Your task to perform on an android device: Open the calendar app, open the side menu, and click the "Day" option Image 0: 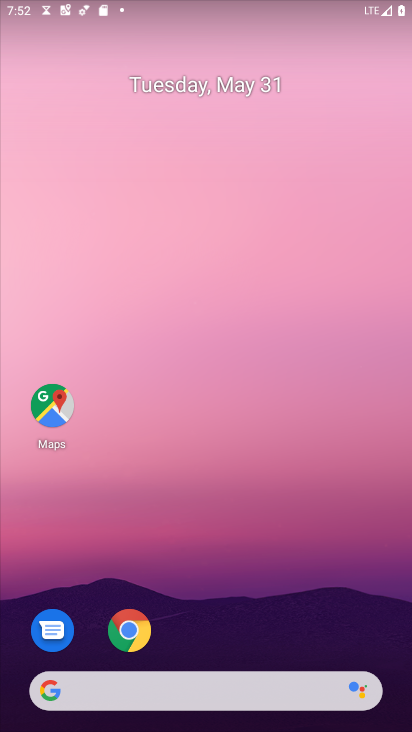
Step 0: drag from (254, 628) to (169, 3)
Your task to perform on an android device: Open the calendar app, open the side menu, and click the "Day" option Image 1: 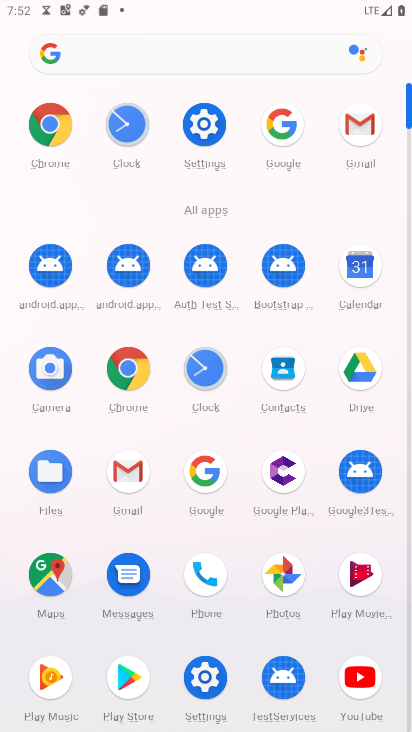
Step 1: click (360, 266)
Your task to perform on an android device: Open the calendar app, open the side menu, and click the "Day" option Image 2: 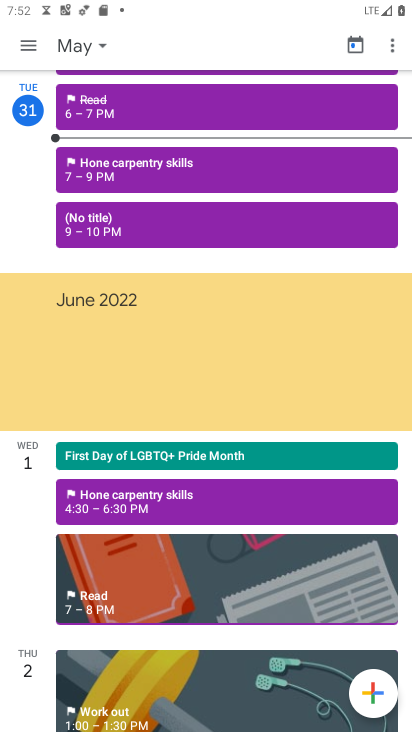
Step 2: click (35, 40)
Your task to perform on an android device: Open the calendar app, open the side menu, and click the "Day" option Image 3: 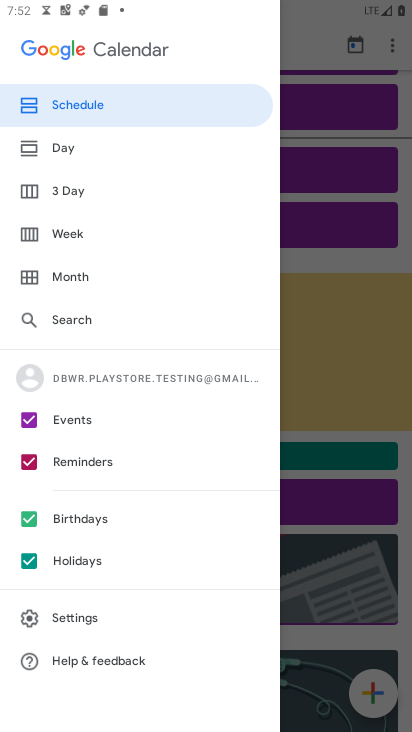
Step 3: click (70, 142)
Your task to perform on an android device: Open the calendar app, open the side menu, and click the "Day" option Image 4: 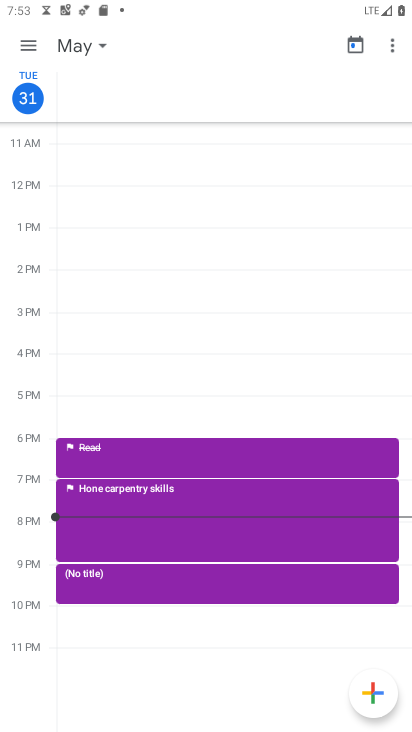
Step 4: task complete